Your task to perform on an android device: change the clock display to show seconds Image 0: 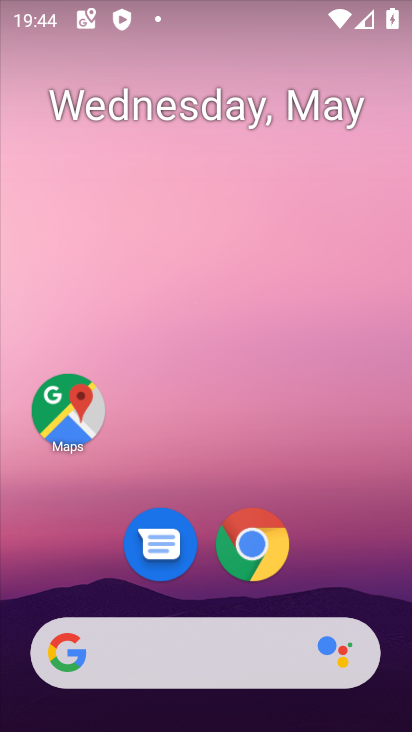
Step 0: drag from (212, 582) to (236, 66)
Your task to perform on an android device: change the clock display to show seconds Image 1: 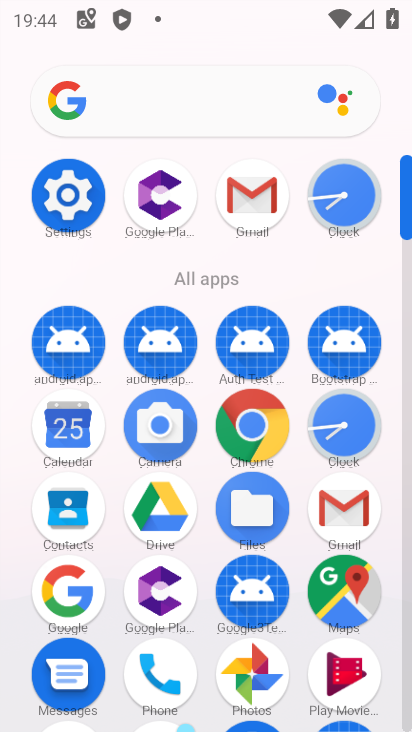
Step 1: click (335, 213)
Your task to perform on an android device: change the clock display to show seconds Image 2: 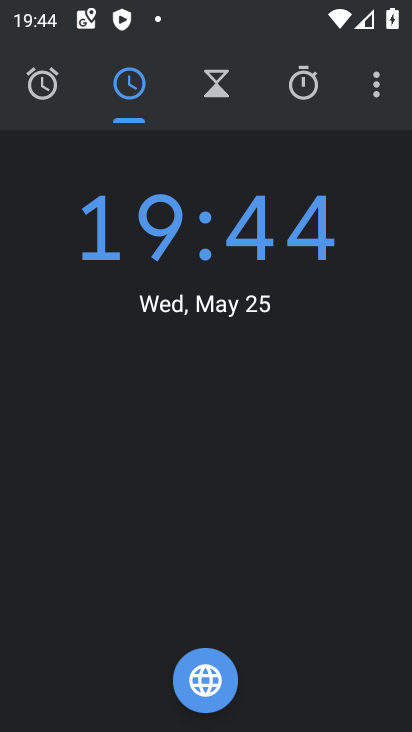
Step 2: click (381, 80)
Your task to perform on an android device: change the clock display to show seconds Image 3: 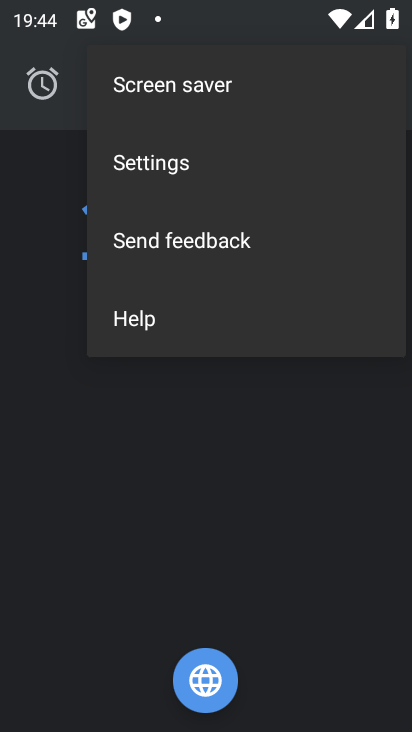
Step 3: click (176, 175)
Your task to perform on an android device: change the clock display to show seconds Image 4: 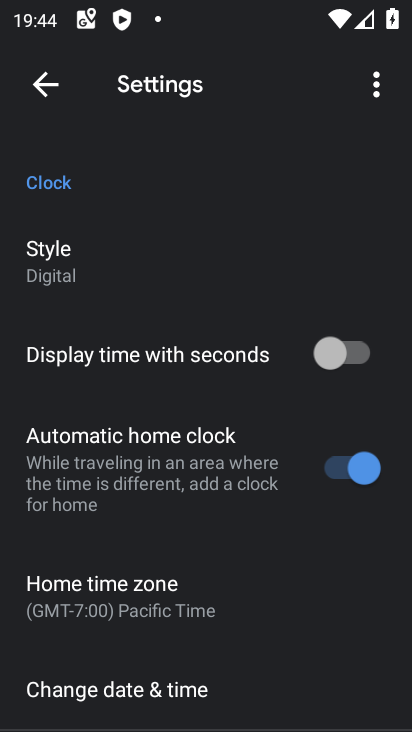
Step 4: click (363, 359)
Your task to perform on an android device: change the clock display to show seconds Image 5: 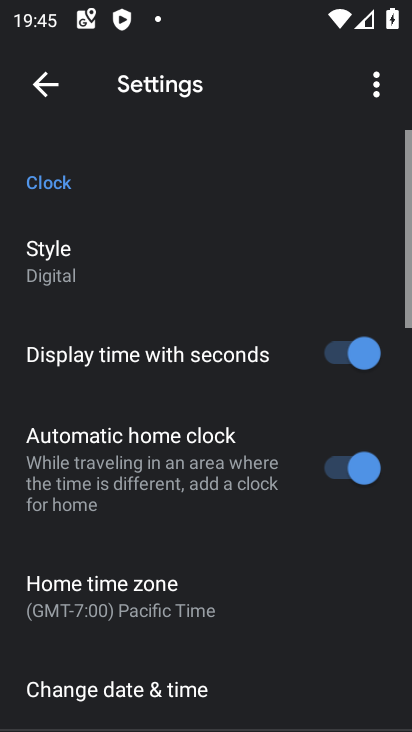
Step 5: task complete